Your task to perform on an android device: install app "Pandora - Music & Podcasts" Image 0: 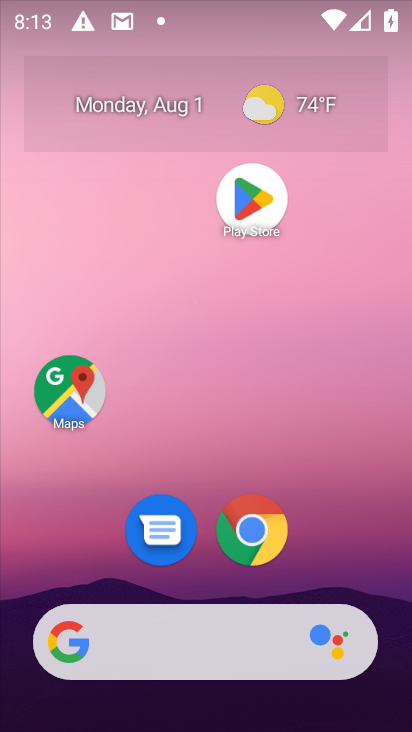
Step 0: click (244, 205)
Your task to perform on an android device: install app "Pandora - Music & Podcasts" Image 1: 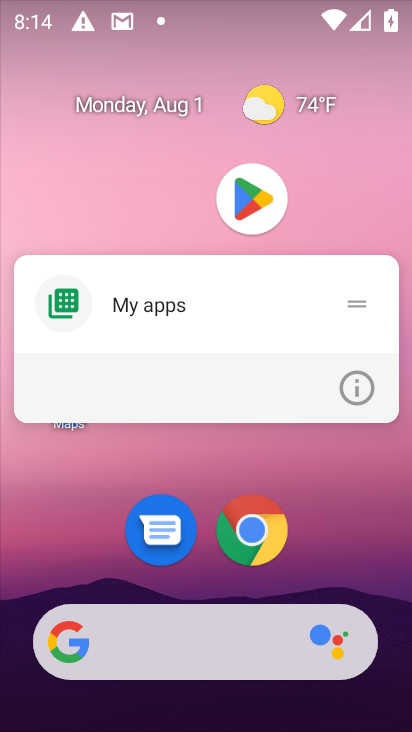
Step 1: click (244, 205)
Your task to perform on an android device: install app "Pandora - Music & Podcasts" Image 2: 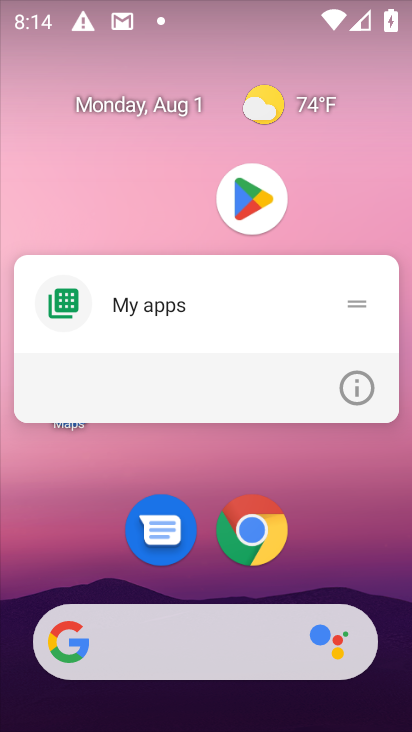
Step 2: click (246, 200)
Your task to perform on an android device: install app "Pandora - Music & Podcasts" Image 3: 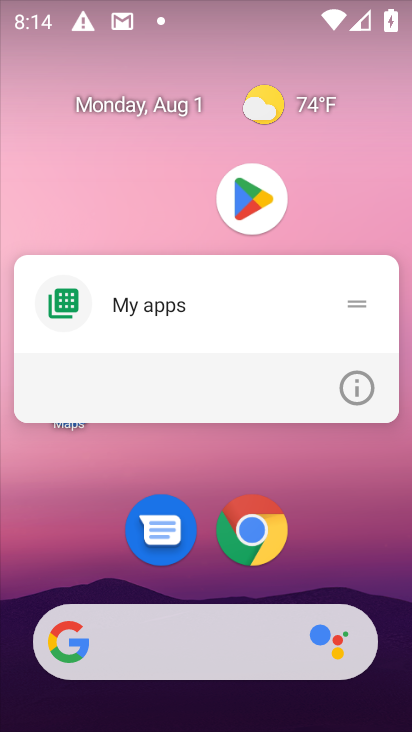
Step 3: click (258, 179)
Your task to perform on an android device: install app "Pandora - Music & Podcasts" Image 4: 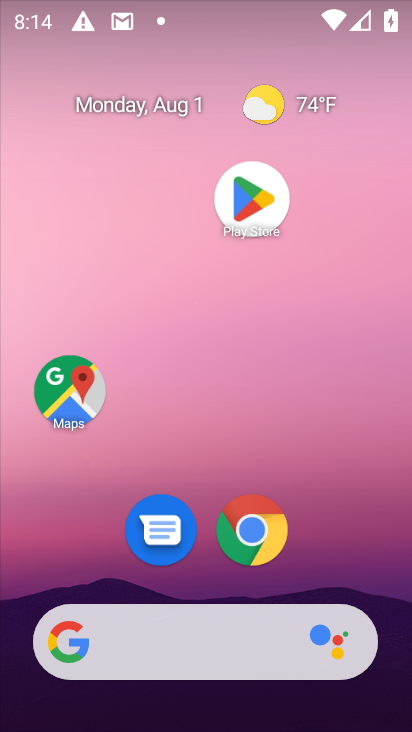
Step 4: click (258, 179)
Your task to perform on an android device: install app "Pandora - Music & Podcasts" Image 5: 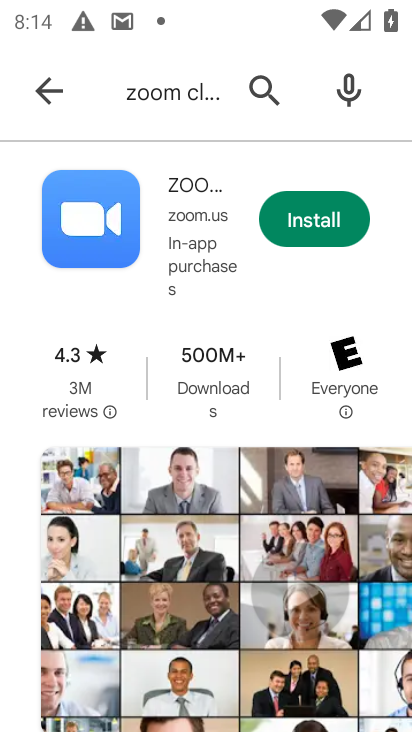
Step 5: click (273, 88)
Your task to perform on an android device: install app "Pandora - Music & Podcasts" Image 6: 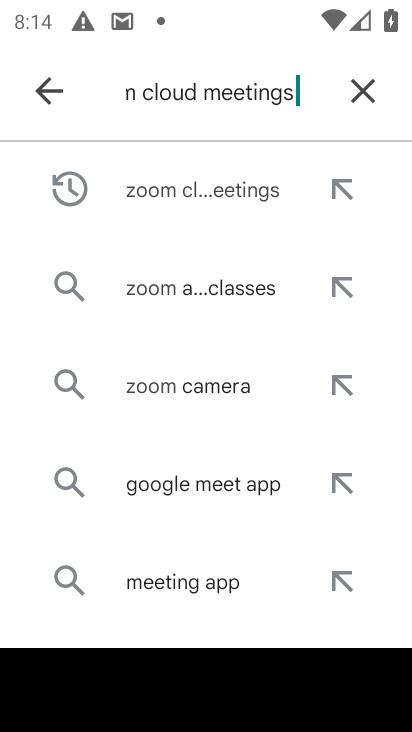
Step 6: click (371, 91)
Your task to perform on an android device: install app "Pandora - Music & Podcasts" Image 7: 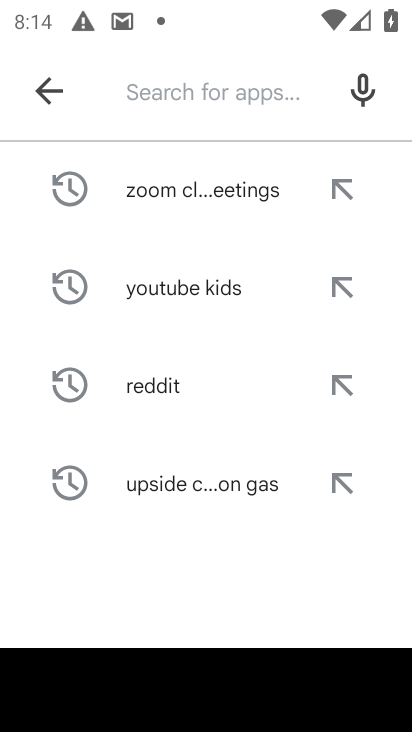
Step 7: type "pandora  music podcasts "
Your task to perform on an android device: install app "Pandora - Music & Podcasts" Image 8: 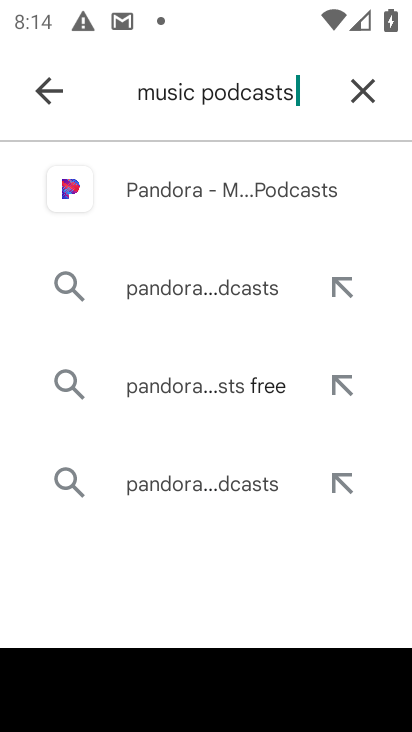
Step 8: click (188, 176)
Your task to perform on an android device: install app "Pandora - Music & Podcasts" Image 9: 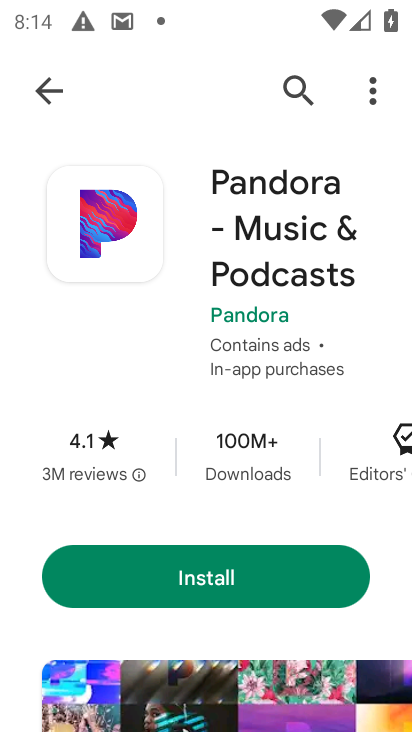
Step 9: click (264, 566)
Your task to perform on an android device: install app "Pandora - Music & Podcasts" Image 10: 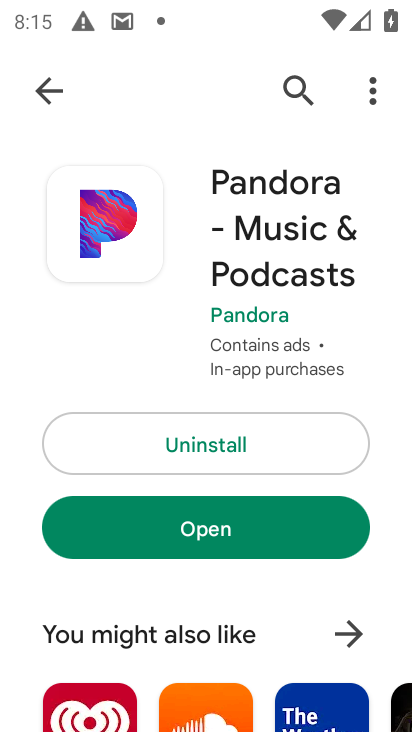
Step 10: task complete